Your task to perform on an android device: Go to Wikipedia Image 0: 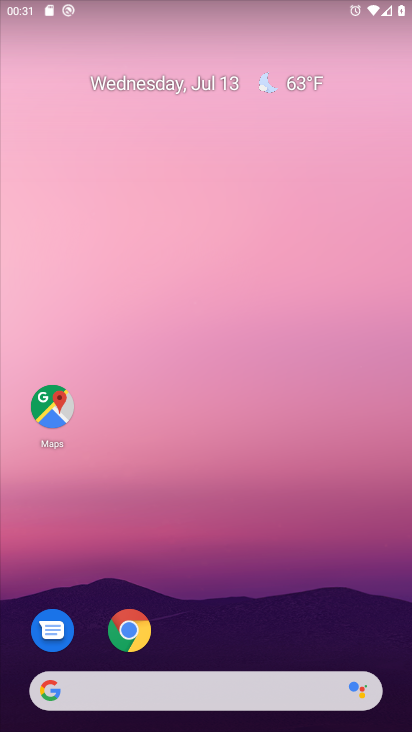
Step 0: click (134, 644)
Your task to perform on an android device: Go to Wikipedia Image 1: 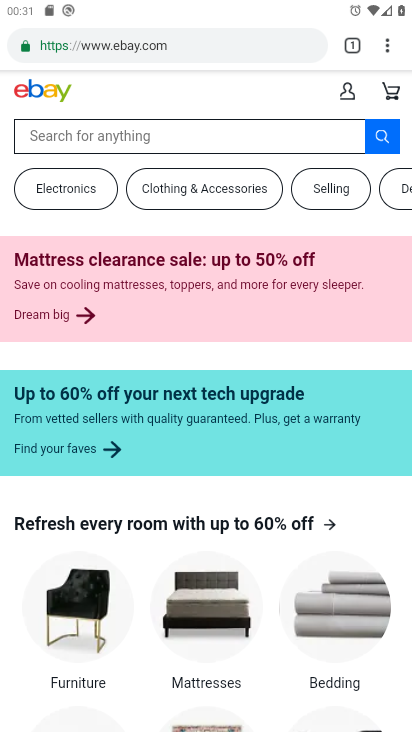
Step 1: click (182, 30)
Your task to perform on an android device: Go to Wikipedia Image 2: 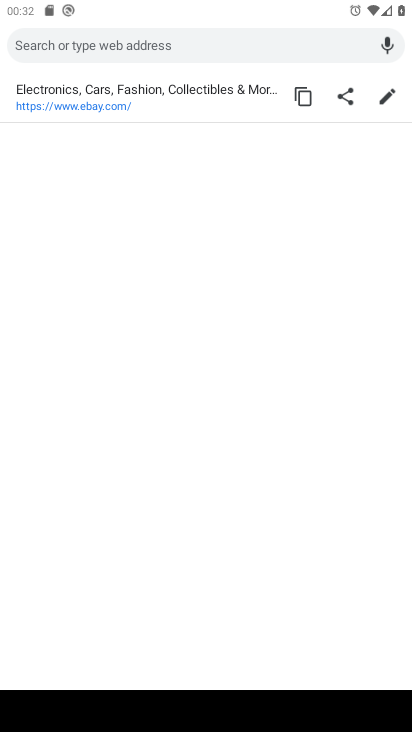
Step 2: type "wikipedia"
Your task to perform on an android device: Go to Wikipedia Image 3: 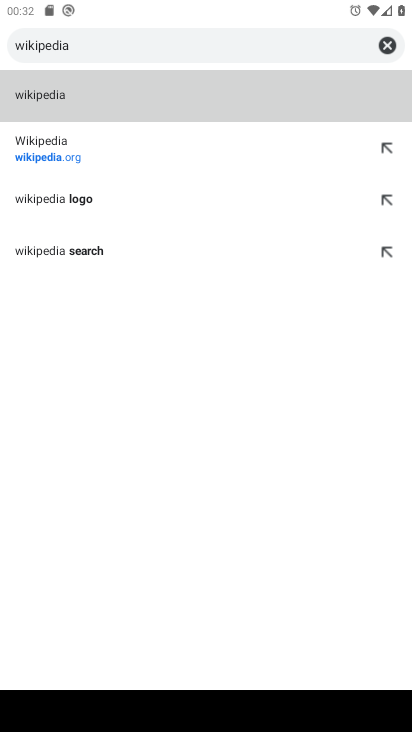
Step 3: click (65, 152)
Your task to perform on an android device: Go to Wikipedia Image 4: 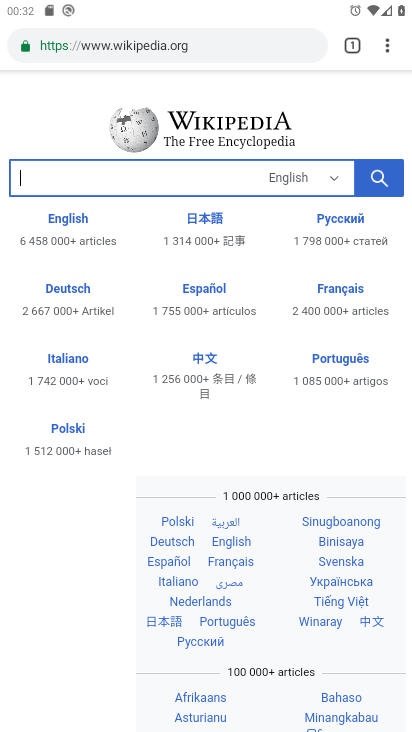
Step 4: task complete